Your task to perform on an android device: change notifications settings Image 0: 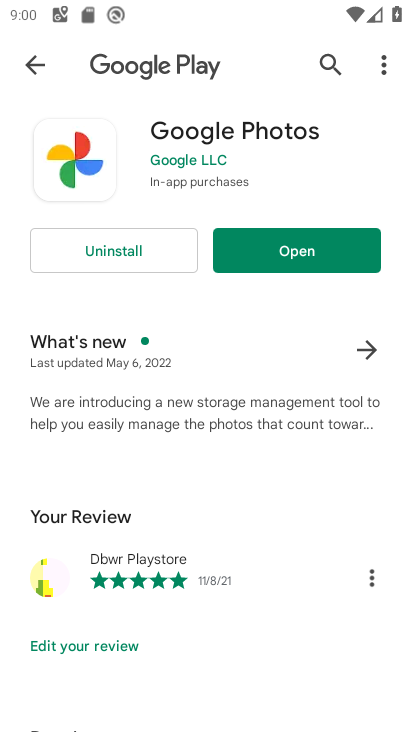
Step 0: press home button
Your task to perform on an android device: change notifications settings Image 1: 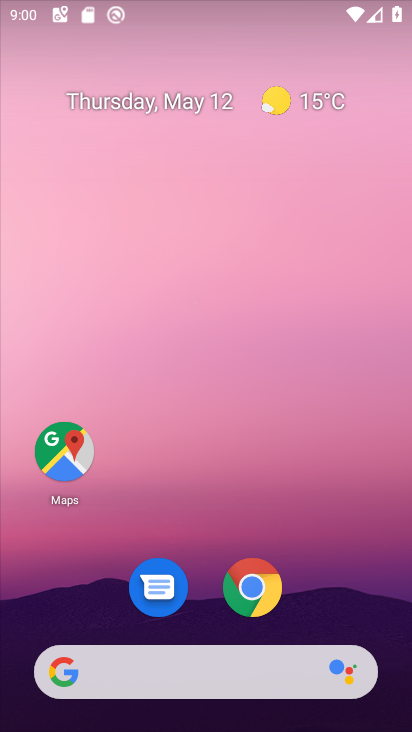
Step 1: drag from (389, 591) to (314, 139)
Your task to perform on an android device: change notifications settings Image 2: 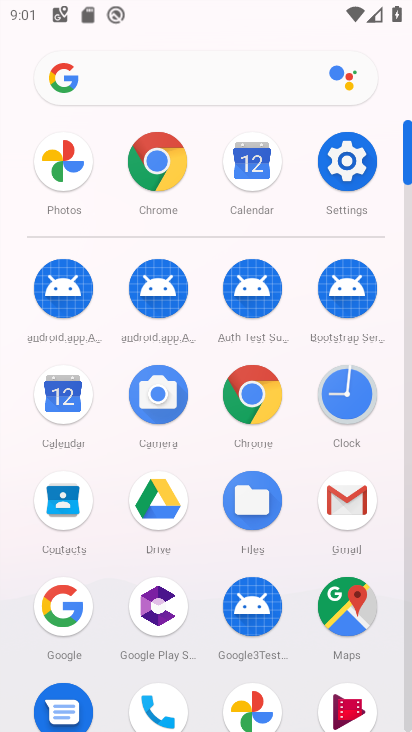
Step 2: click (326, 159)
Your task to perform on an android device: change notifications settings Image 3: 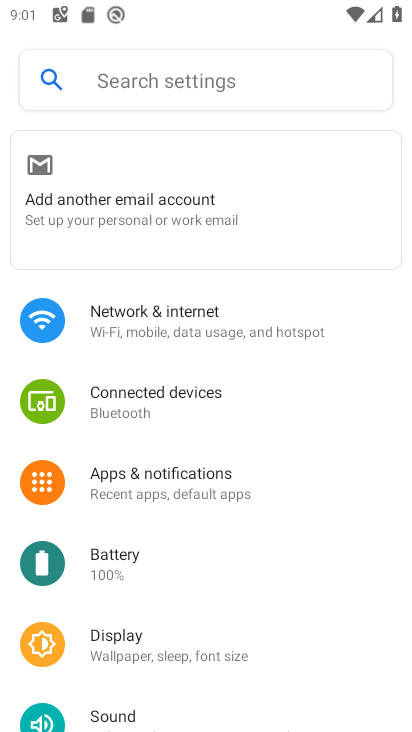
Step 3: click (235, 475)
Your task to perform on an android device: change notifications settings Image 4: 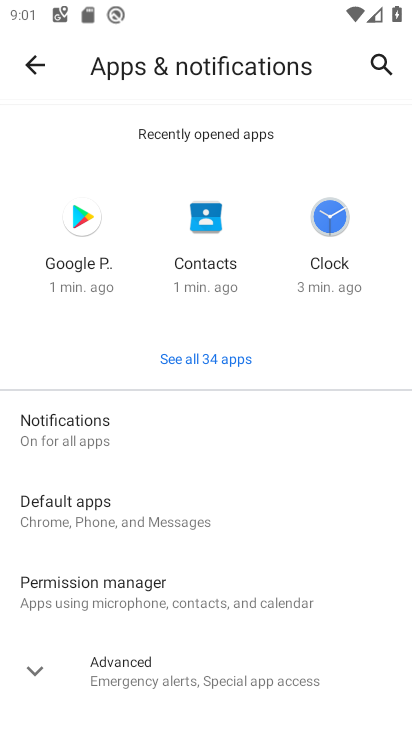
Step 4: click (182, 450)
Your task to perform on an android device: change notifications settings Image 5: 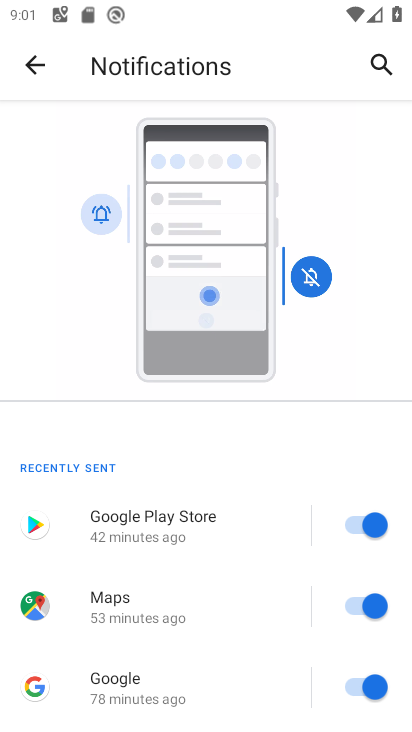
Step 5: task complete